Your task to perform on an android device: change text size in settings app Image 0: 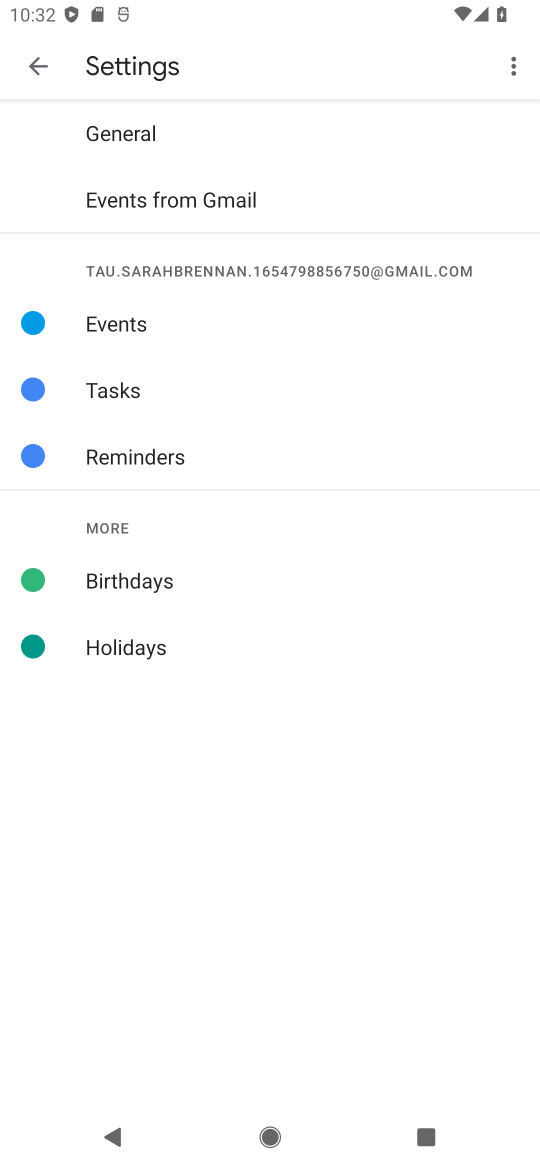
Step 0: press home button
Your task to perform on an android device: change text size in settings app Image 1: 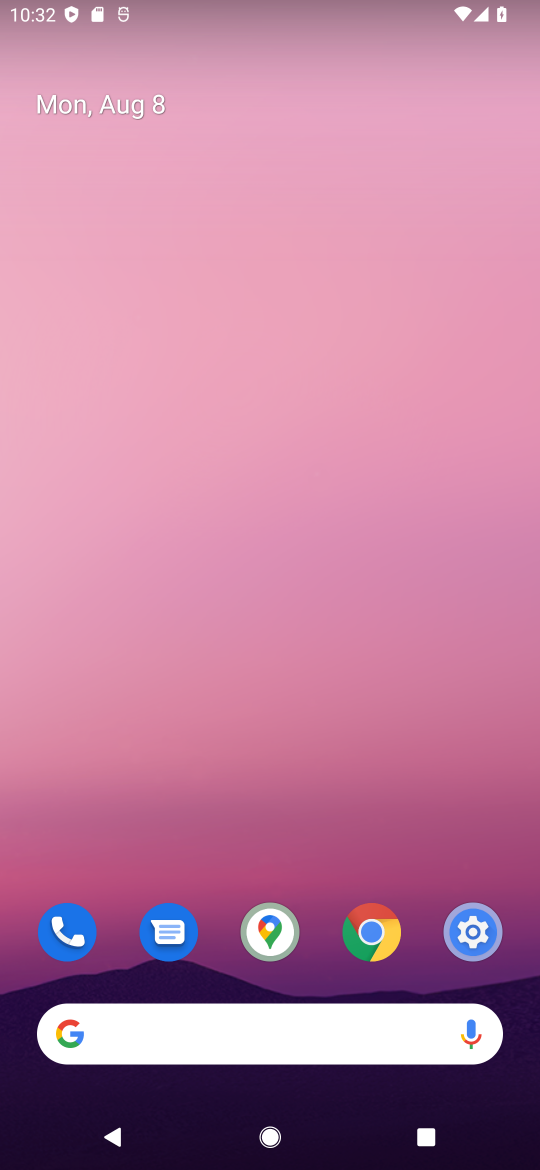
Step 1: click (479, 943)
Your task to perform on an android device: change text size in settings app Image 2: 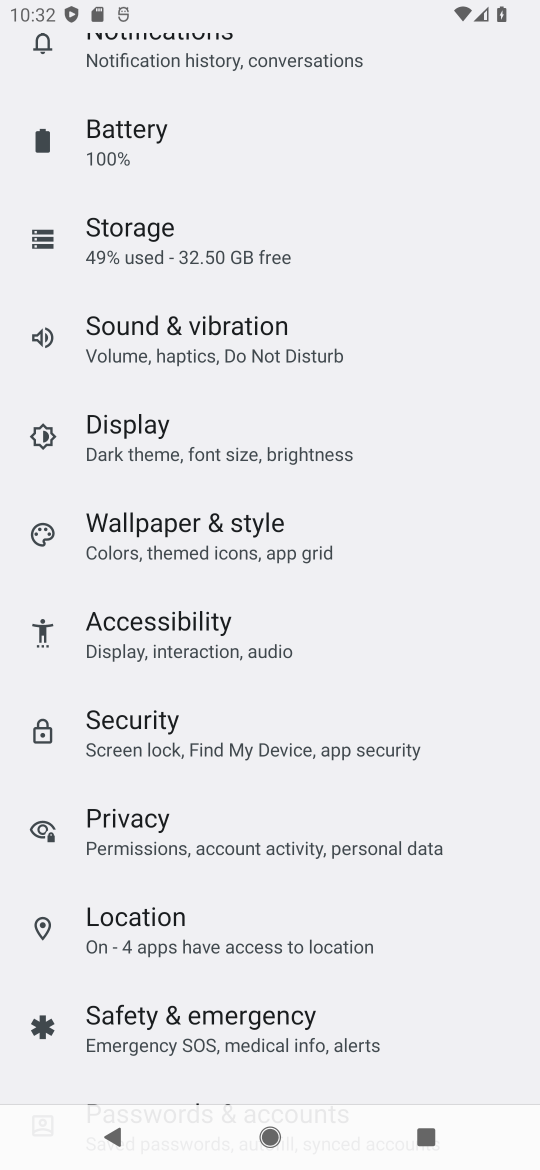
Step 2: click (214, 435)
Your task to perform on an android device: change text size in settings app Image 3: 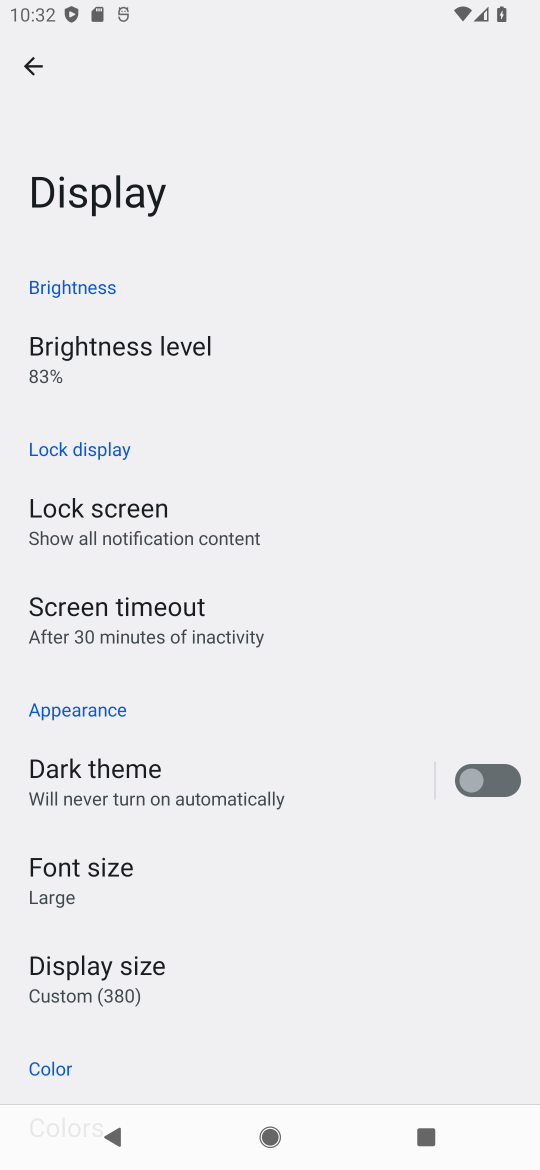
Step 3: click (109, 876)
Your task to perform on an android device: change text size in settings app Image 4: 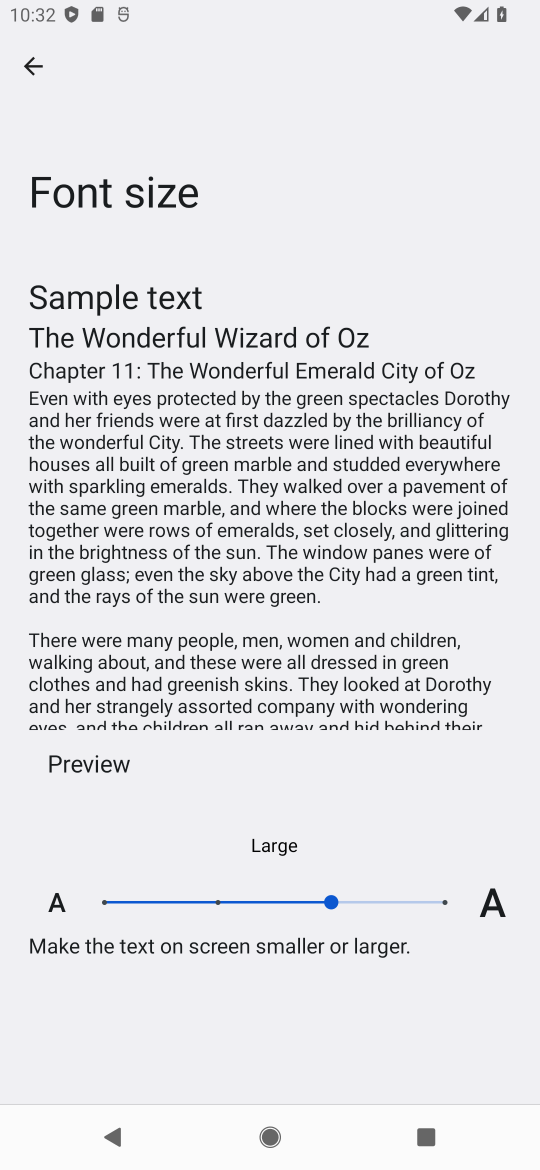
Step 4: click (105, 893)
Your task to perform on an android device: change text size in settings app Image 5: 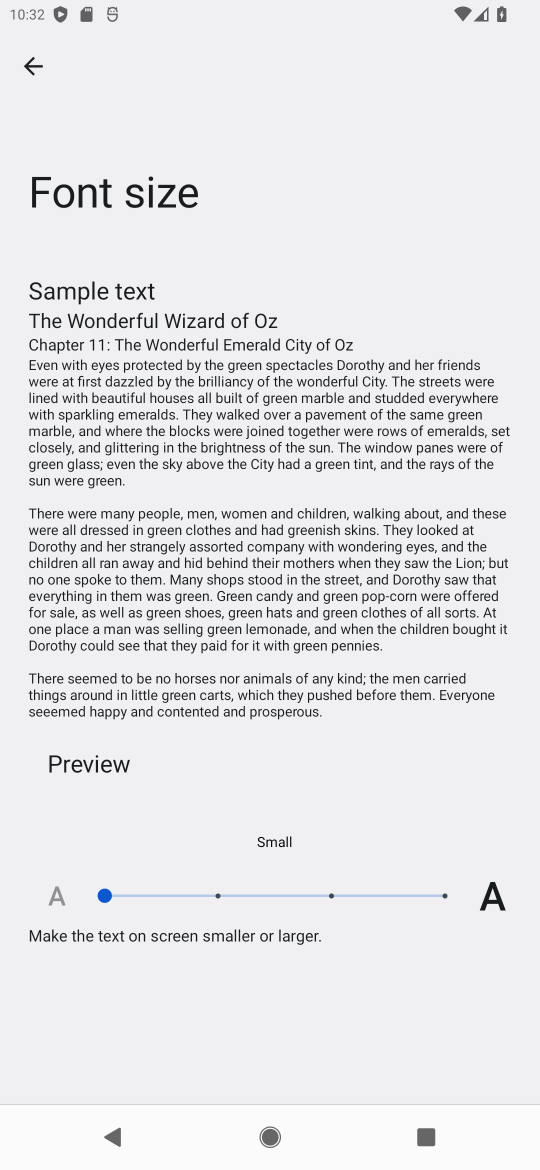
Step 5: task complete